Your task to perform on an android device: install app "TextNow: Call + Text Unlimited" Image 0: 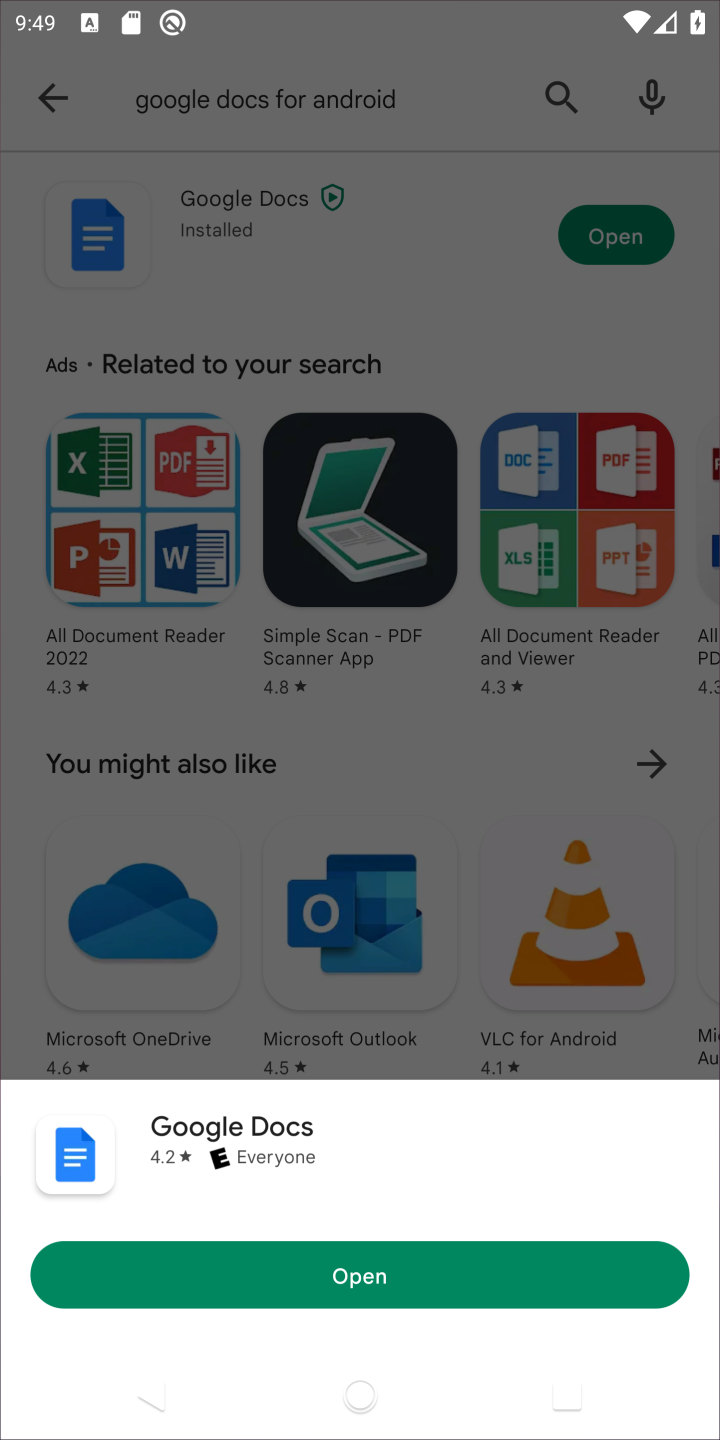
Step 0: click (35, 91)
Your task to perform on an android device: install app "TextNow: Call + Text Unlimited" Image 1: 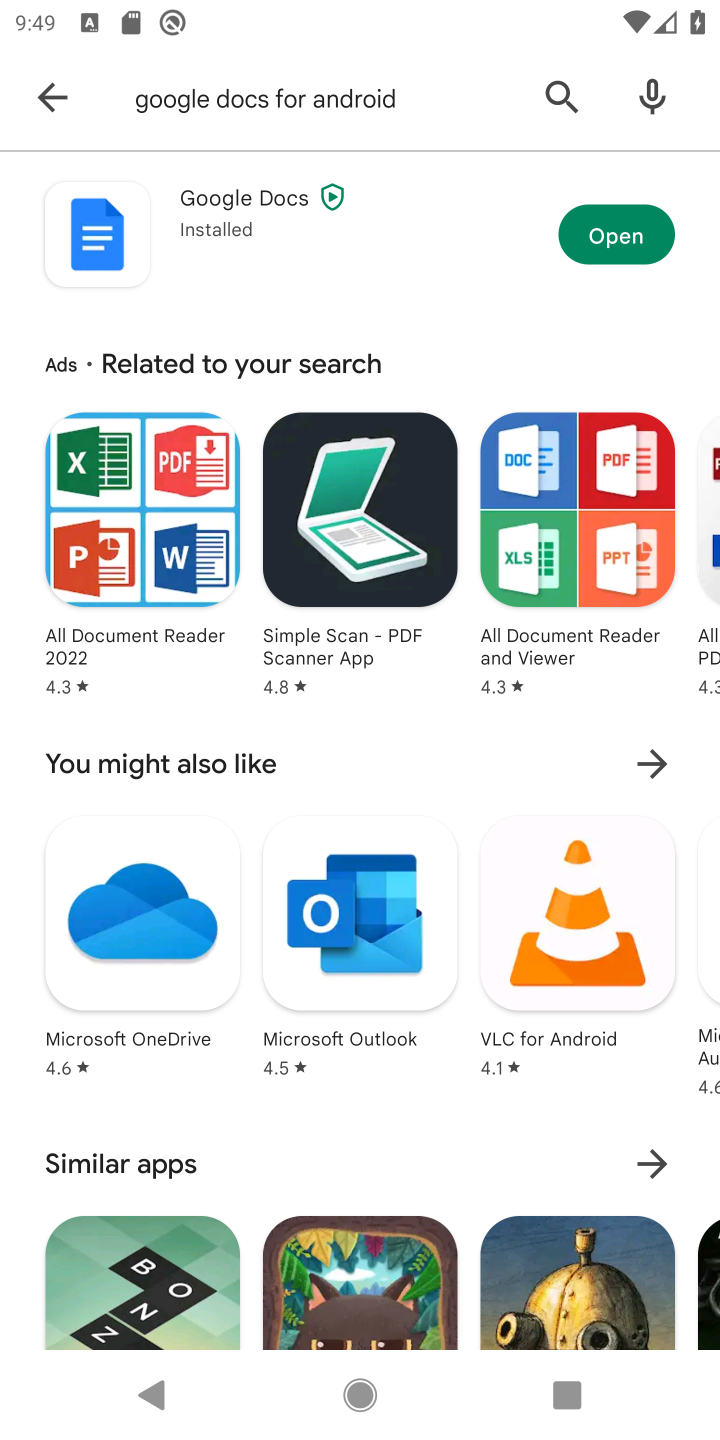
Step 1: click (38, 75)
Your task to perform on an android device: install app "TextNow: Call + Text Unlimited" Image 2: 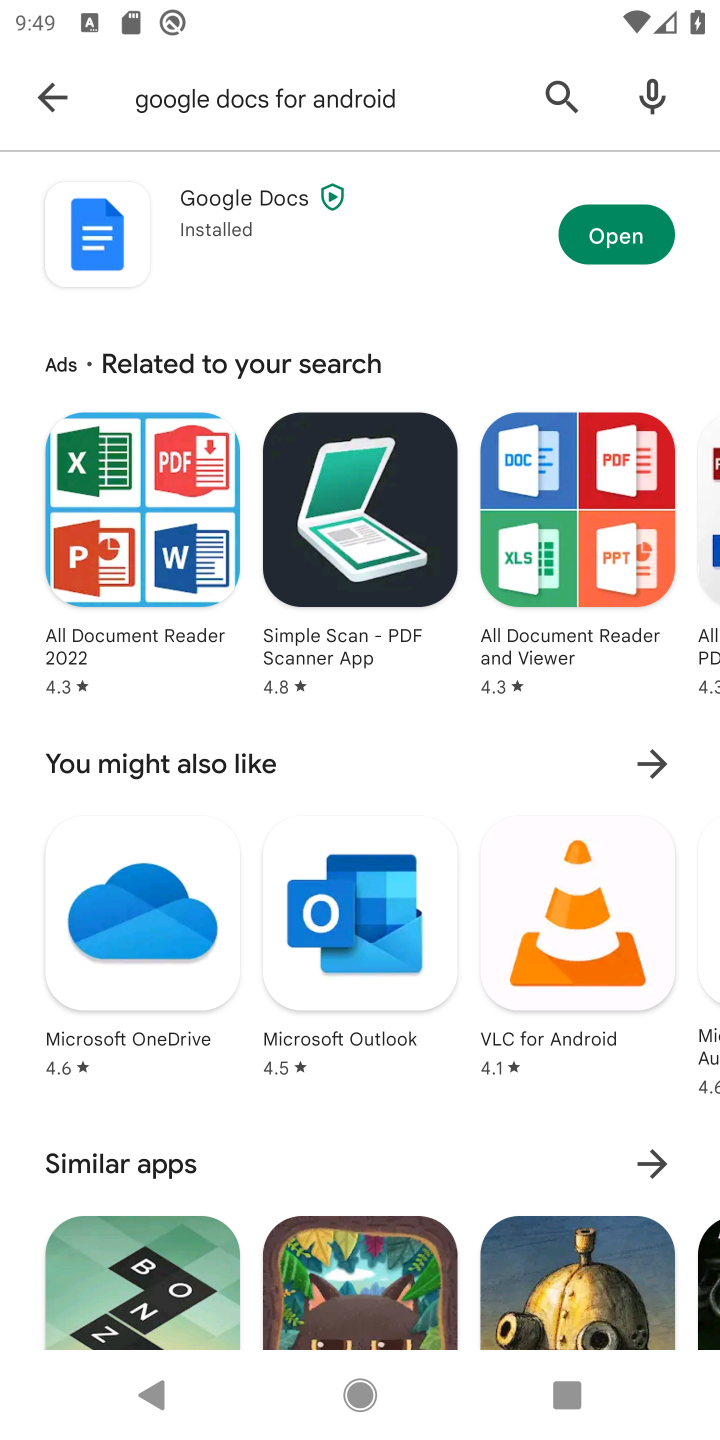
Step 2: click (64, 102)
Your task to perform on an android device: install app "TextNow: Call + Text Unlimited" Image 3: 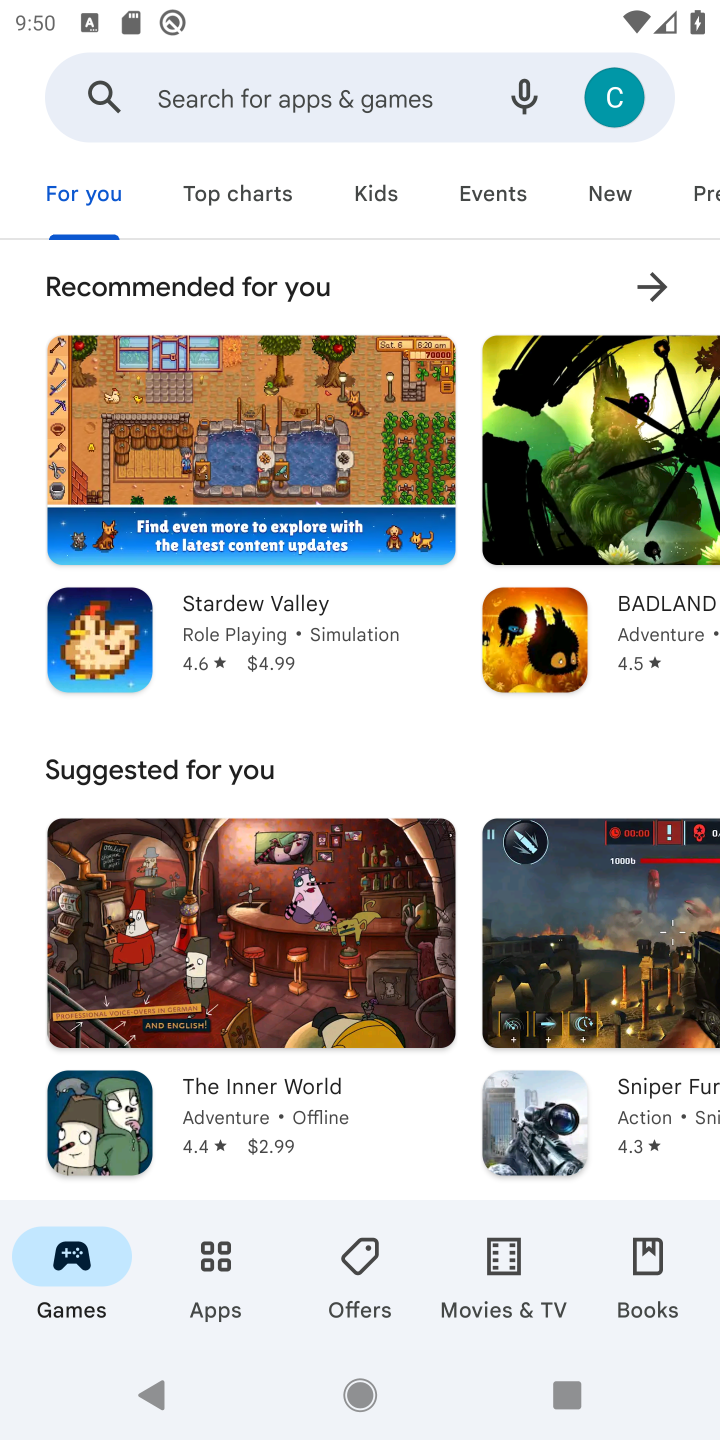
Step 3: click (379, 73)
Your task to perform on an android device: install app "TextNow: Call + Text Unlimited" Image 4: 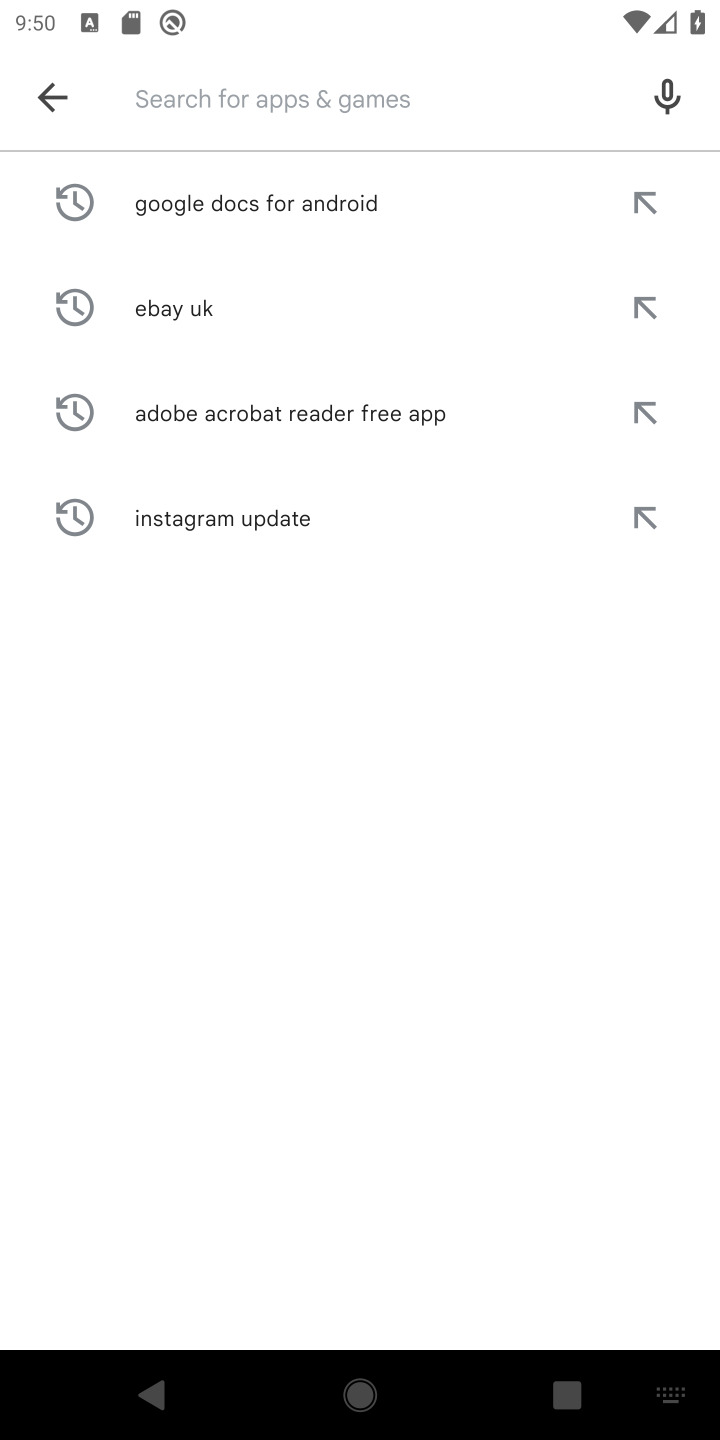
Step 4: type "TextNow: Call + Text Unlimited "
Your task to perform on an android device: install app "TextNow: Call + Text Unlimited" Image 5: 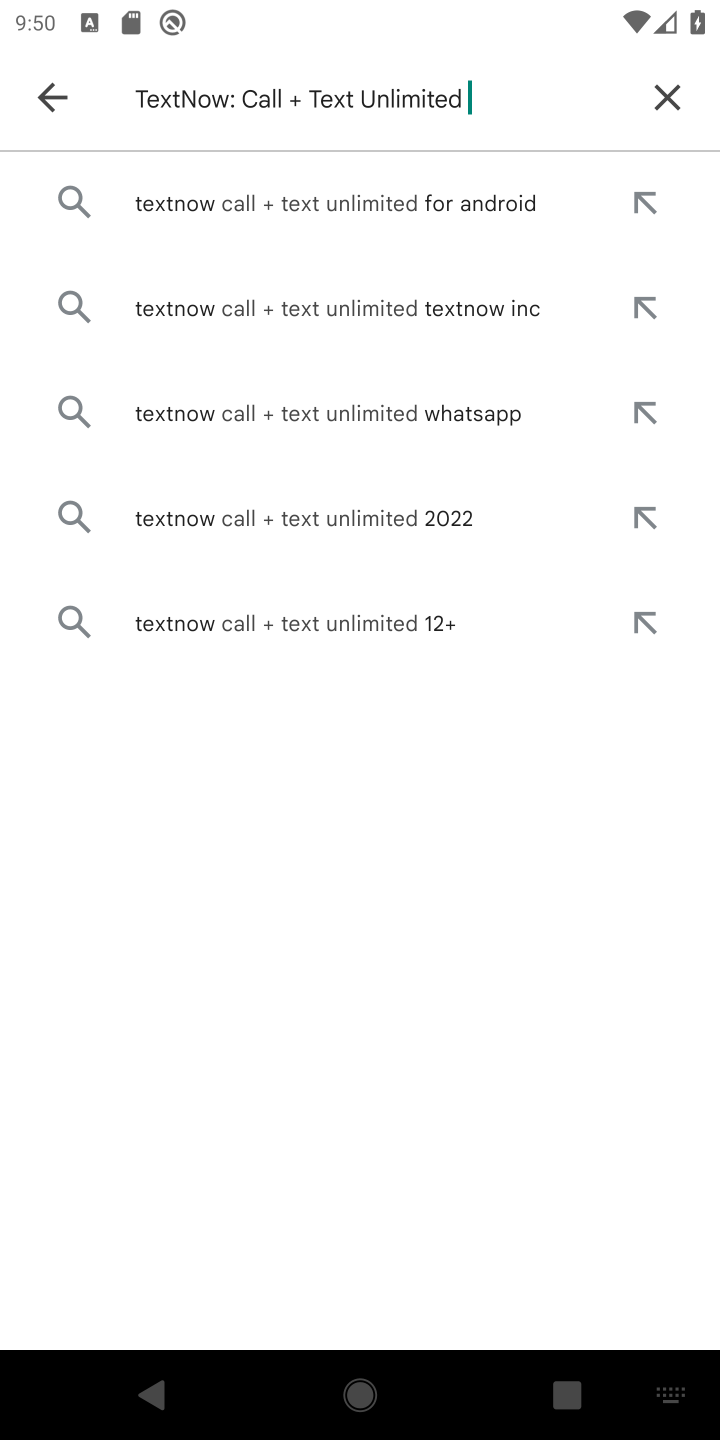
Step 5: click (236, 219)
Your task to perform on an android device: install app "TextNow: Call + Text Unlimited" Image 6: 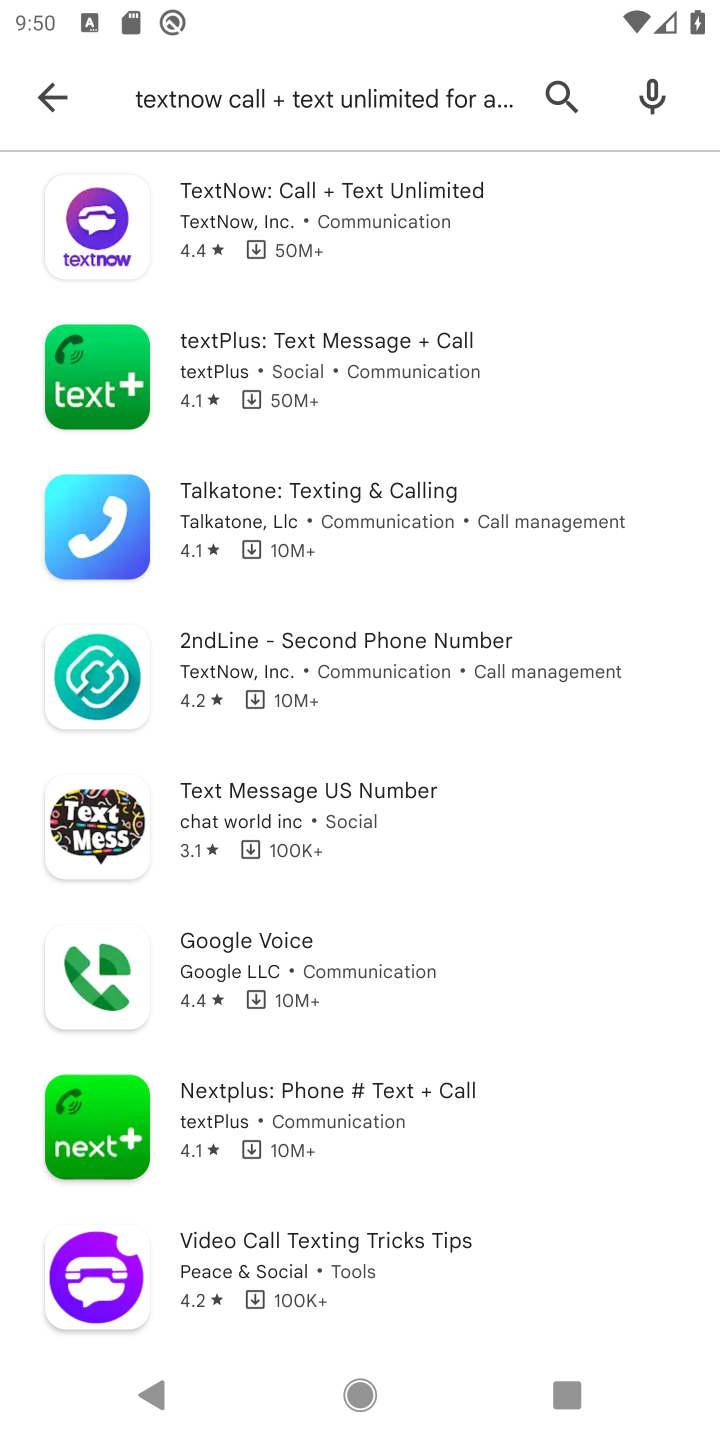
Step 6: click (236, 199)
Your task to perform on an android device: install app "TextNow: Call + Text Unlimited" Image 7: 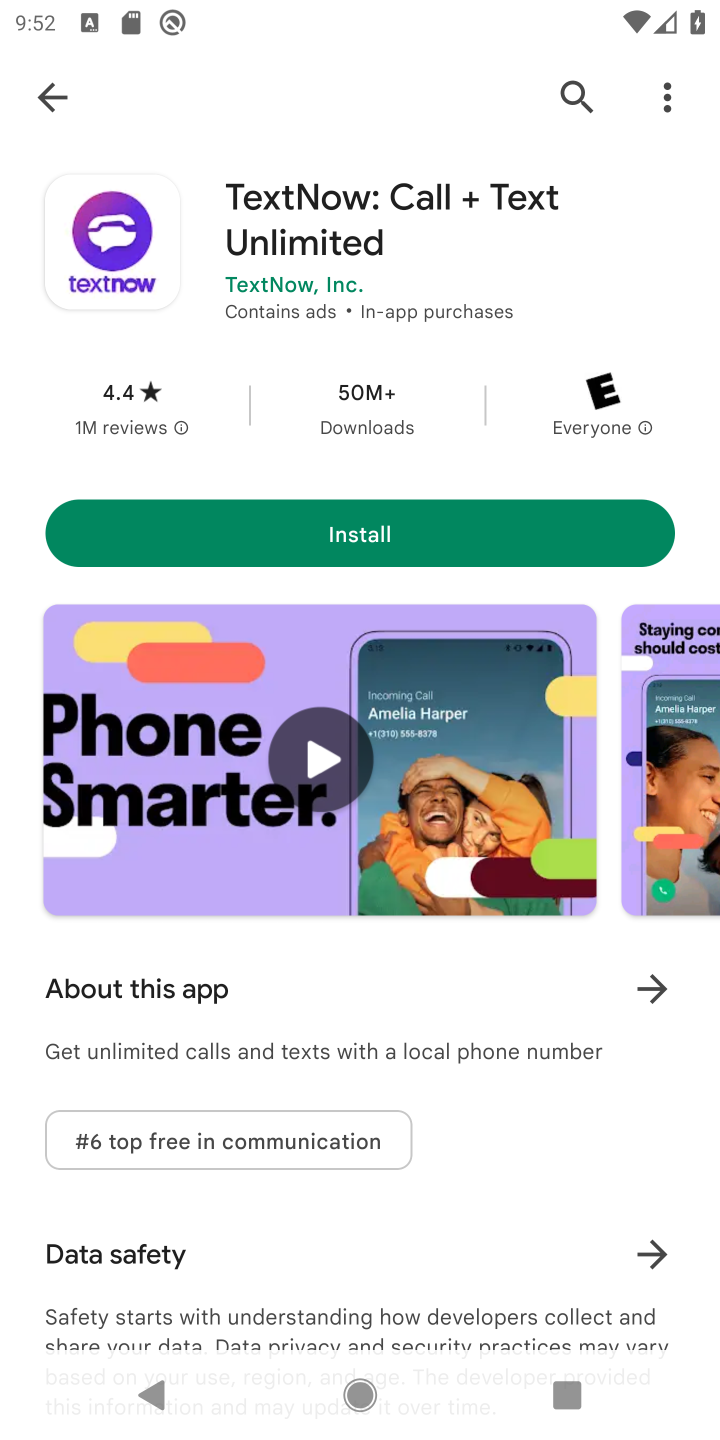
Step 7: click (314, 506)
Your task to perform on an android device: install app "TextNow: Call + Text Unlimited" Image 8: 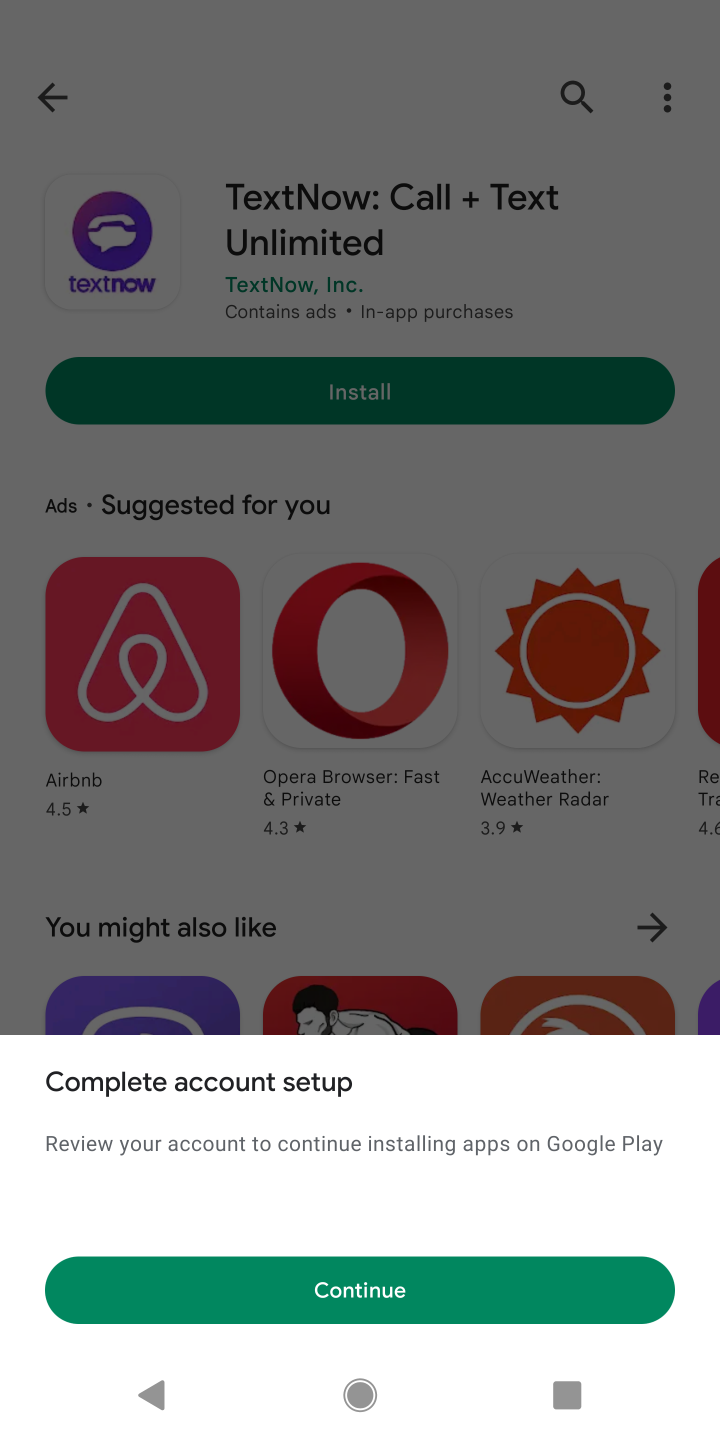
Step 8: task complete